Your task to perform on an android device: Search for "razer blade" on newegg.com, select the first entry, and add it to the cart. Image 0: 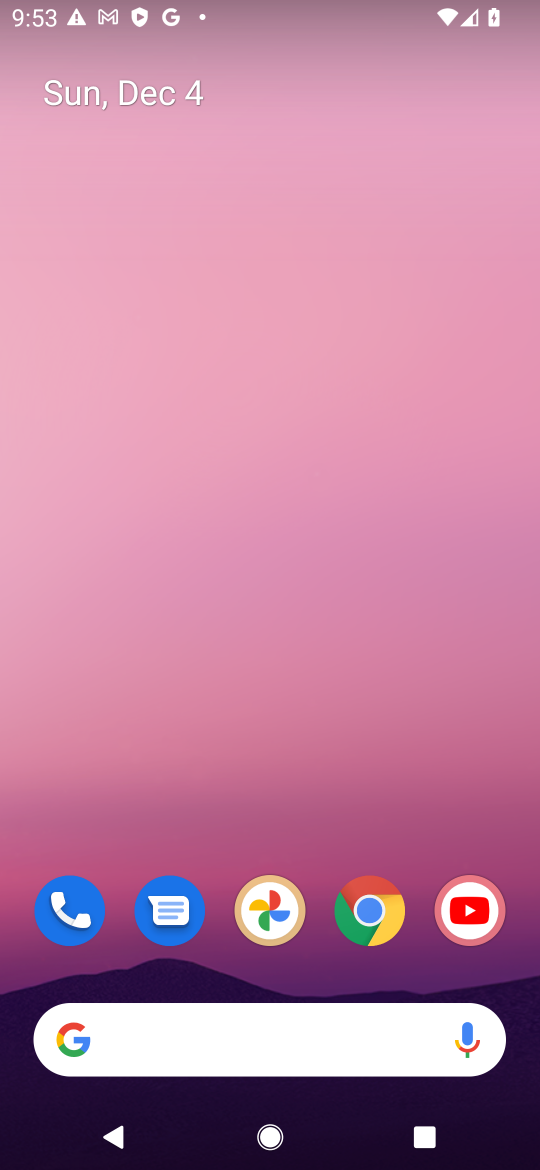
Step 0: drag from (339, 1105) to (195, 85)
Your task to perform on an android device: Search for "razer blade" on newegg.com, select the first entry, and add it to the cart. Image 1: 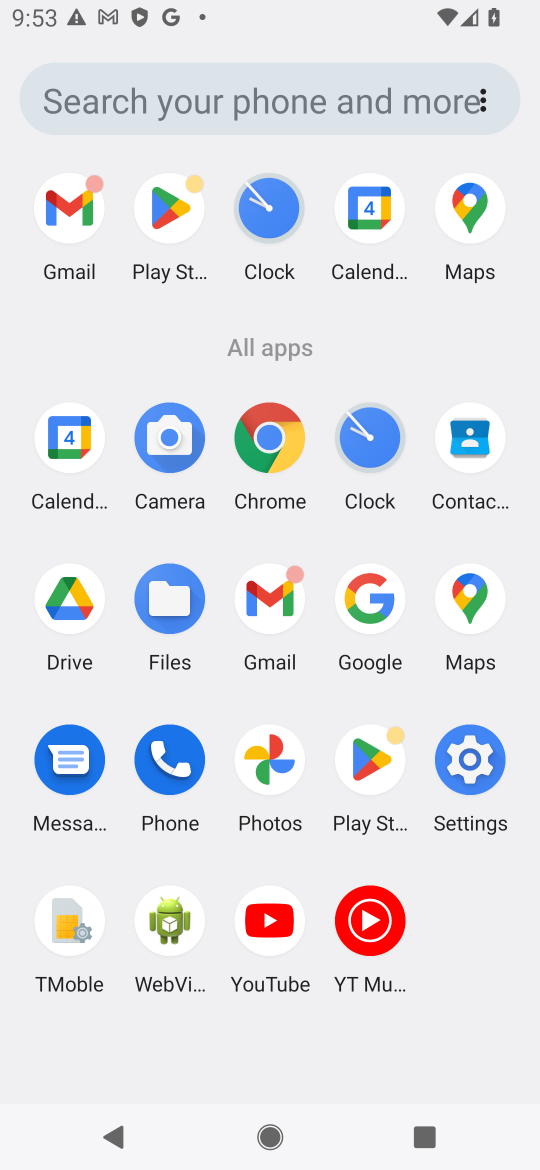
Step 1: click (268, 434)
Your task to perform on an android device: Search for "razer blade" on newegg.com, select the first entry, and add it to the cart. Image 2: 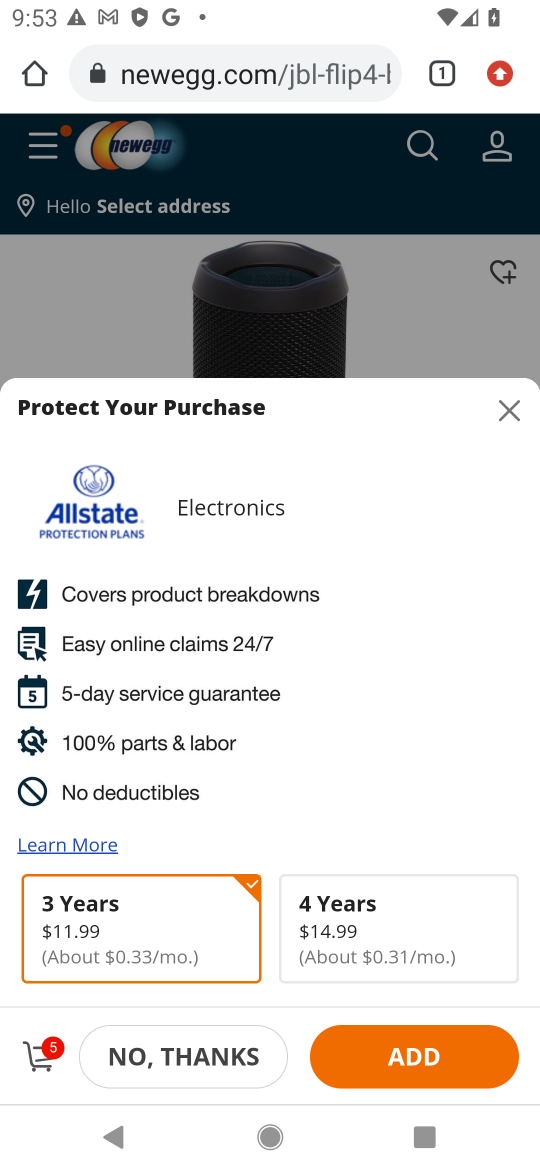
Step 2: click (226, 321)
Your task to perform on an android device: Search for "razer blade" on newegg.com, select the first entry, and add it to the cart. Image 3: 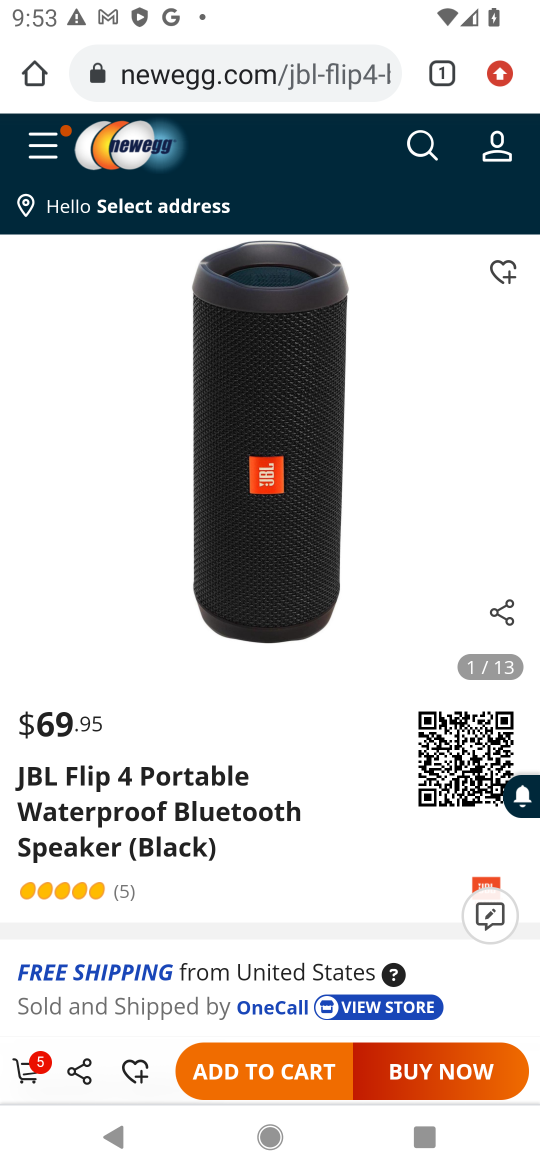
Step 3: click (425, 141)
Your task to perform on an android device: Search for "razer blade" on newegg.com, select the first entry, and add it to the cart. Image 4: 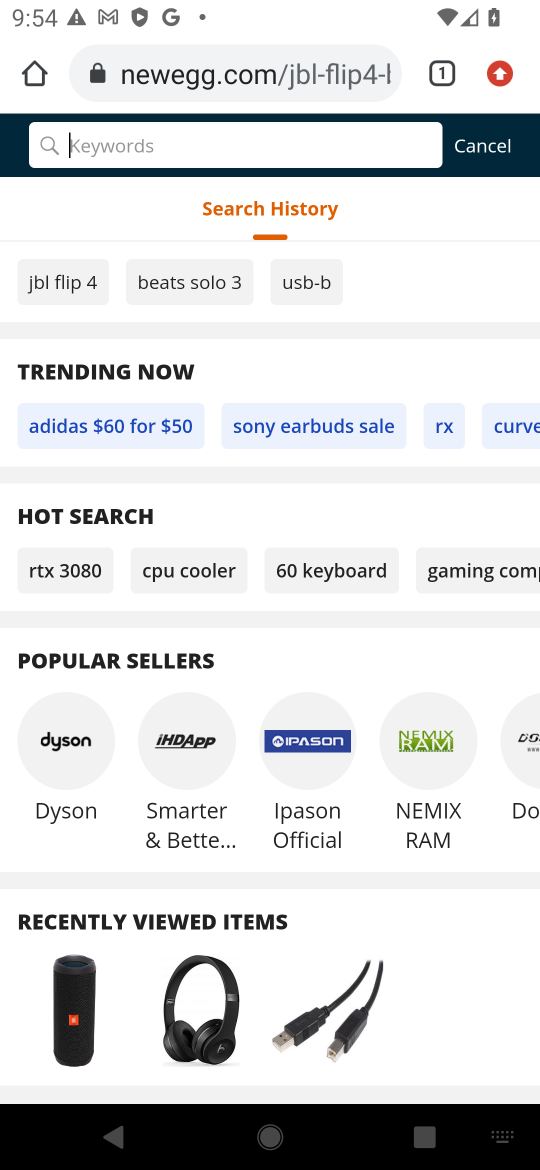
Step 4: type "razer blade"
Your task to perform on an android device: Search for "razer blade" on newegg.com, select the first entry, and add it to the cart. Image 5: 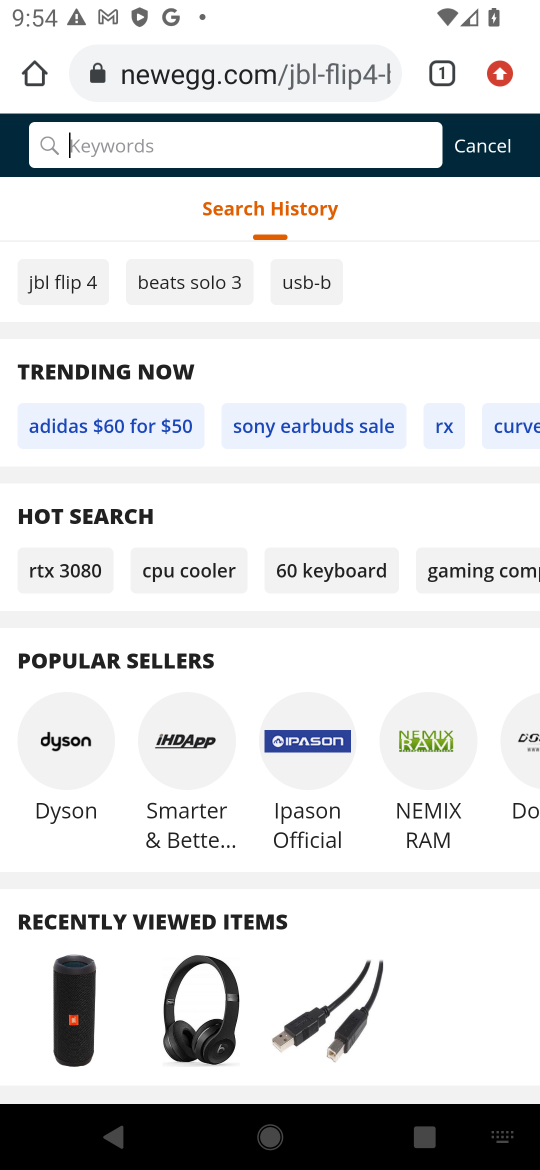
Step 5: type ""
Your task to perform on an android device: Search for "razer blade" on newegg.com, select the first entry, and add it to the cart. Image 6: 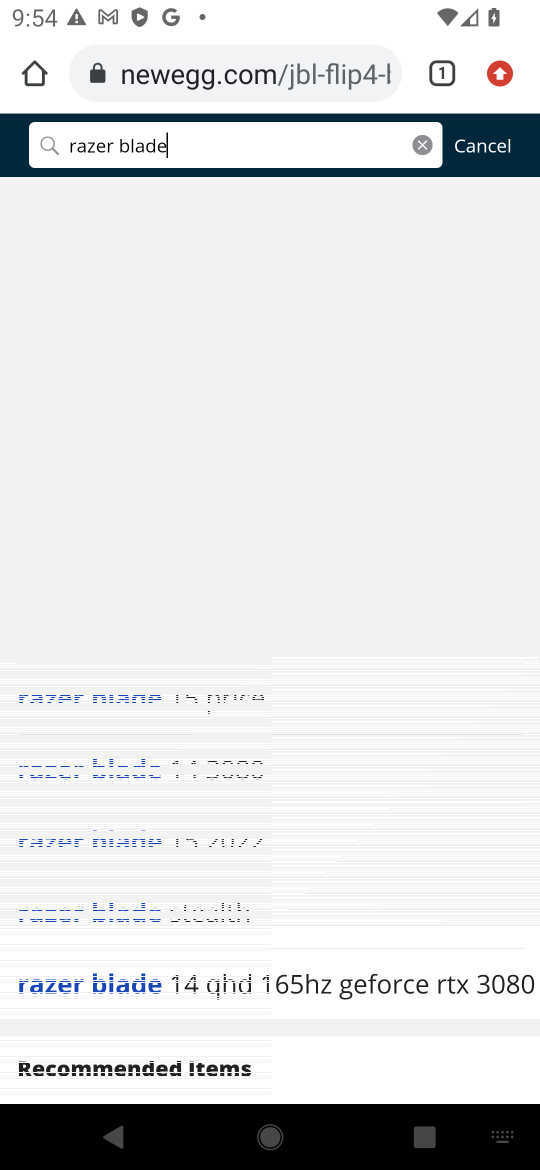
Step 6: click (59, 217)
Your task to perform on an android device: Search for "razer blade" on newegg.com, select the first entry, and add it to the cart. Image 7: 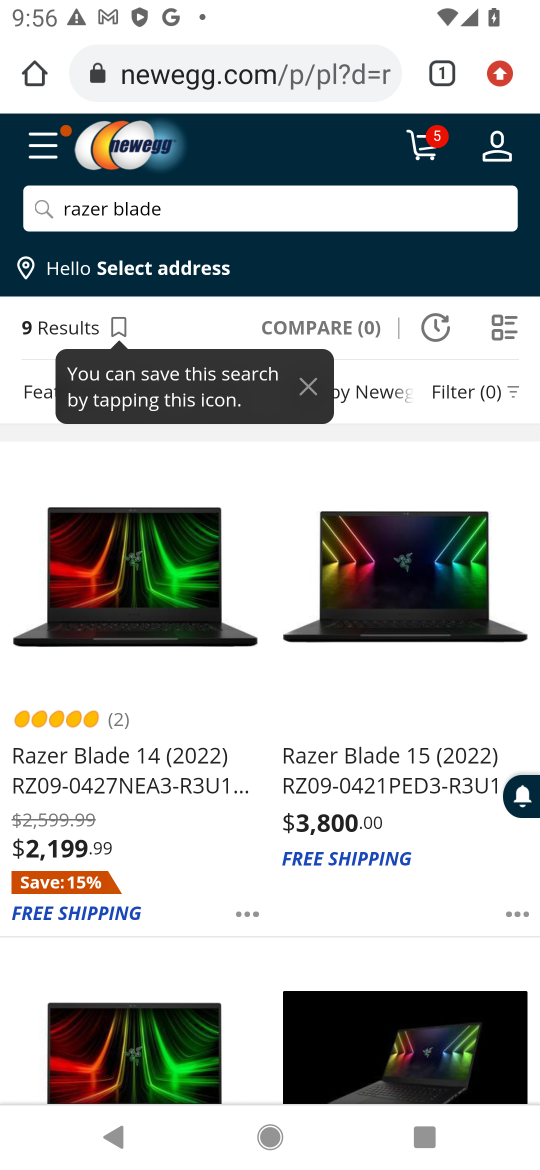
Step 7: click (146, 614)
Your task to perform on an android device: Search for "razer blade" on newegg.com, select the first entry, and add it to the cart. Image 8: 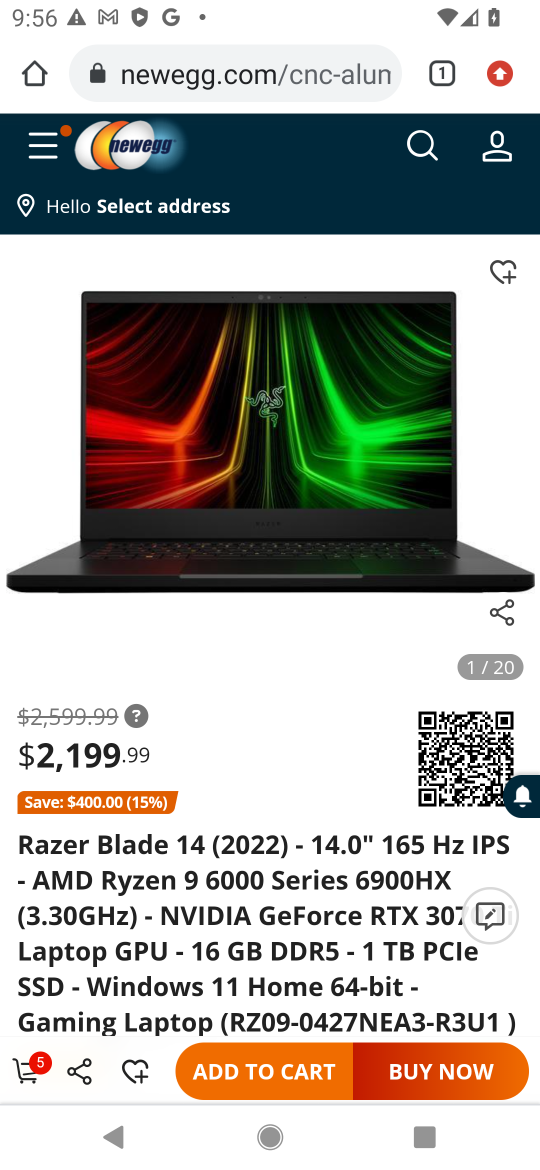
Step 8: drag from (343, 902) to (394, 426)
Your task to perform on an android device: Search for "razer blade" on newegg.com, select the first entry, and add it to the cart. Image 9: 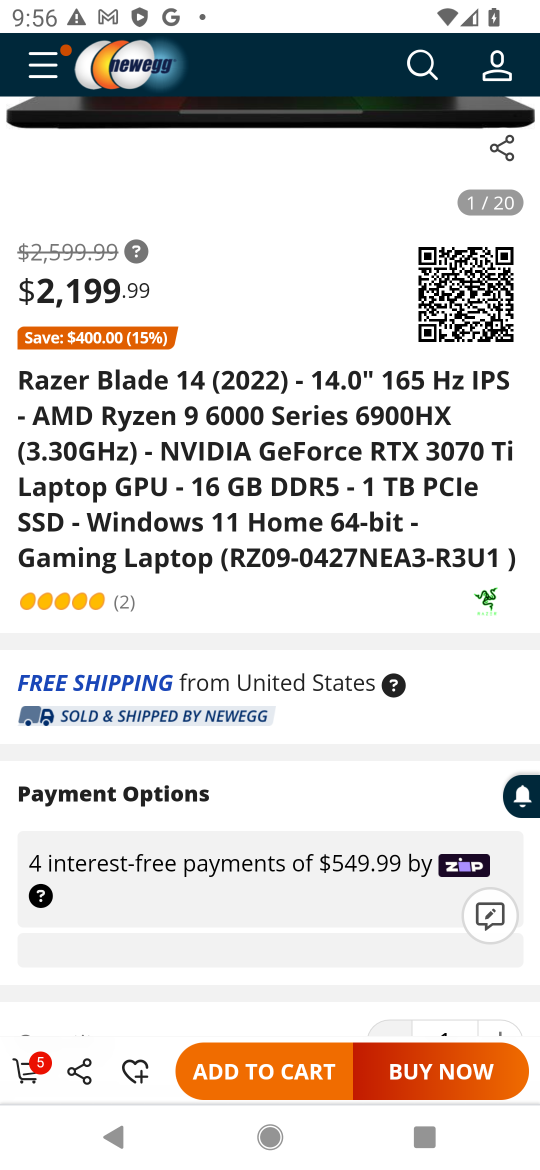
Step 9: click (284, 1077)
Your task to perform on an android device: Search for "razer blade" on newegg.com, select the first entry, and add it to the cart. Image 10: 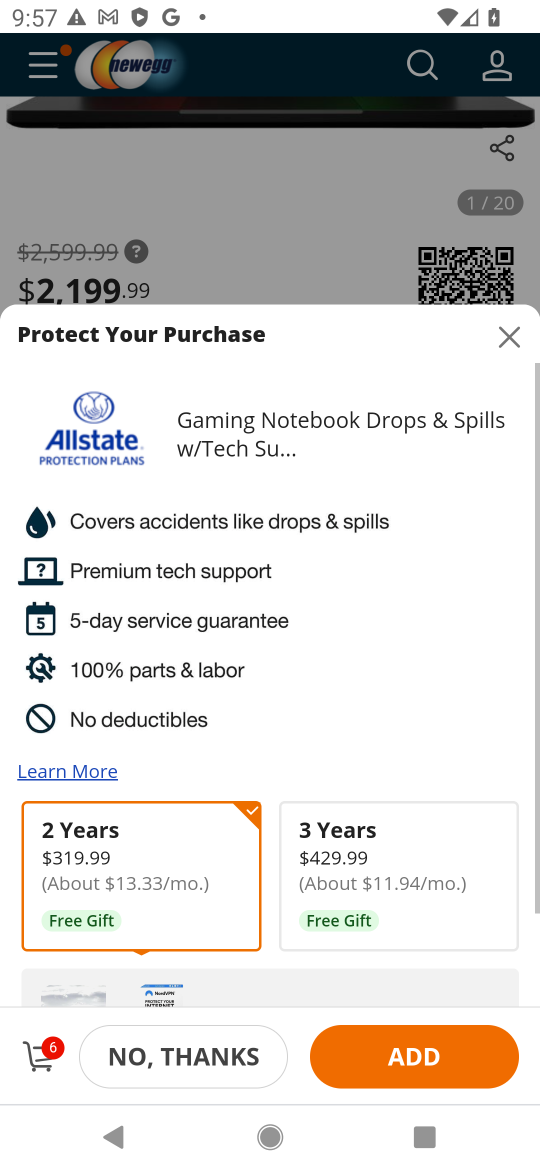
Step 10: task complete